Your task to perform on an android device: Add "panasonic triple a" to the cart on costco.com Image 0: 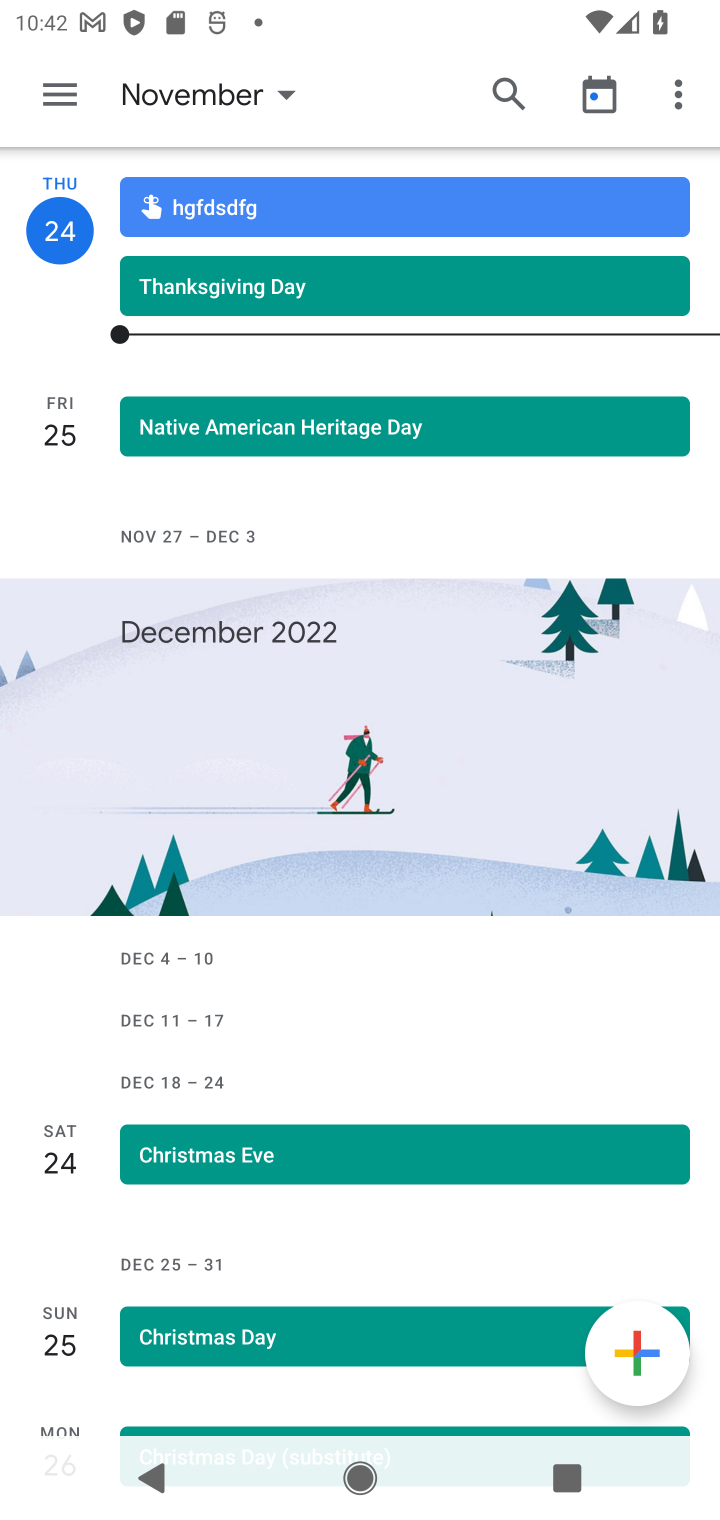
Step 0: press home button
Your task to perform on an android device: Add "panasonic triple a" to the cart on costco.com Image 1: 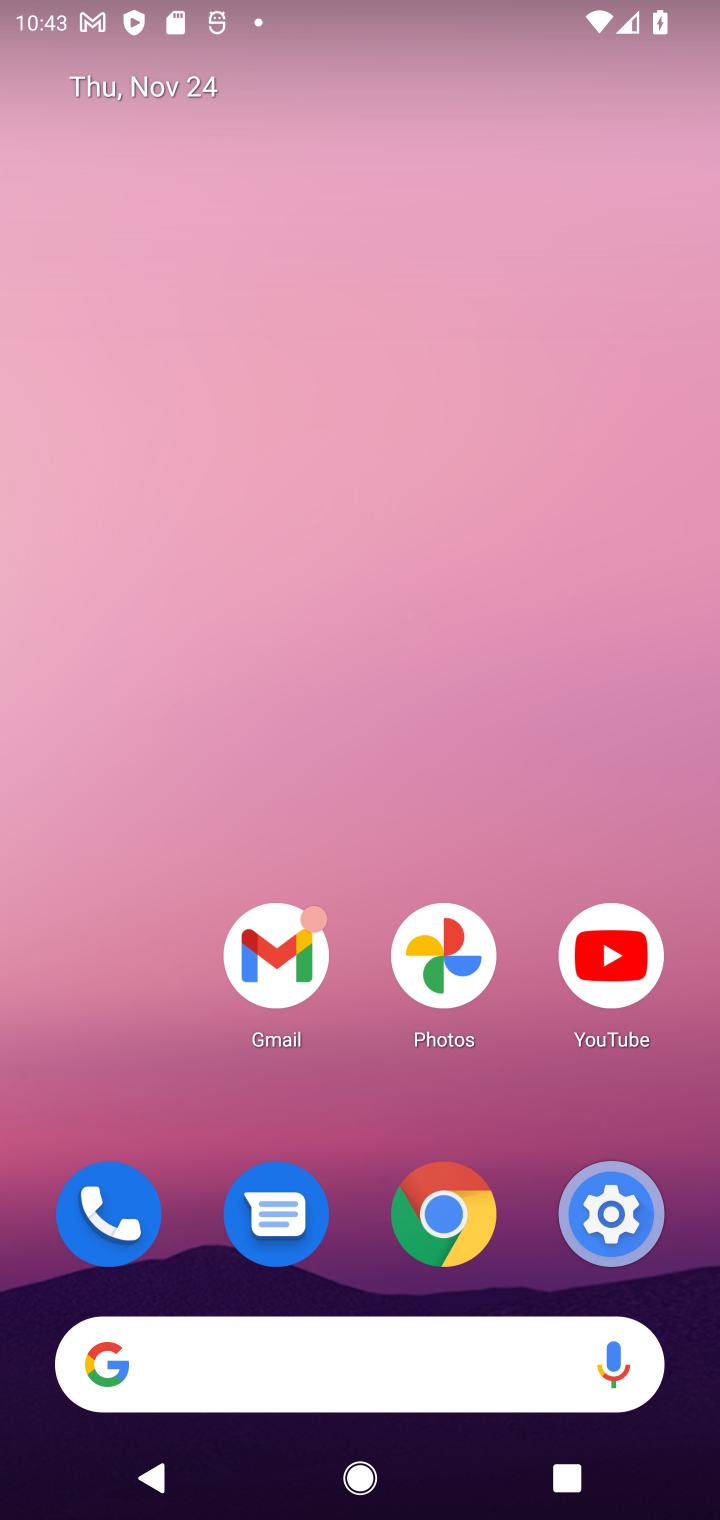
Step 1: click (328, 1362)
Your task to perform on an android device: Add "panasonic triple a" to the cart on costco.com Image 2: 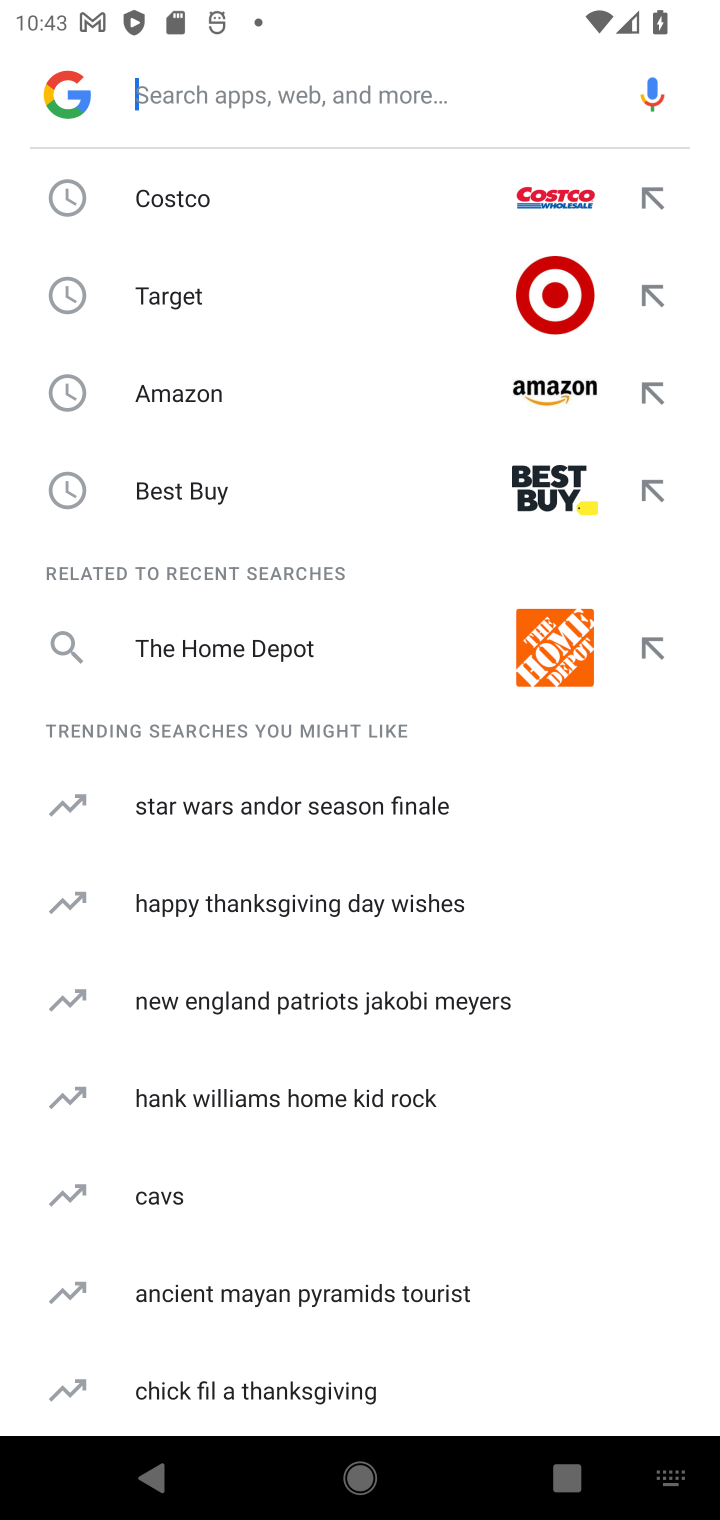
Step 2: click (391, 212)
Your task to perform on an android device: Add "panasonic triple a" to the cart on costco.com Image 3: 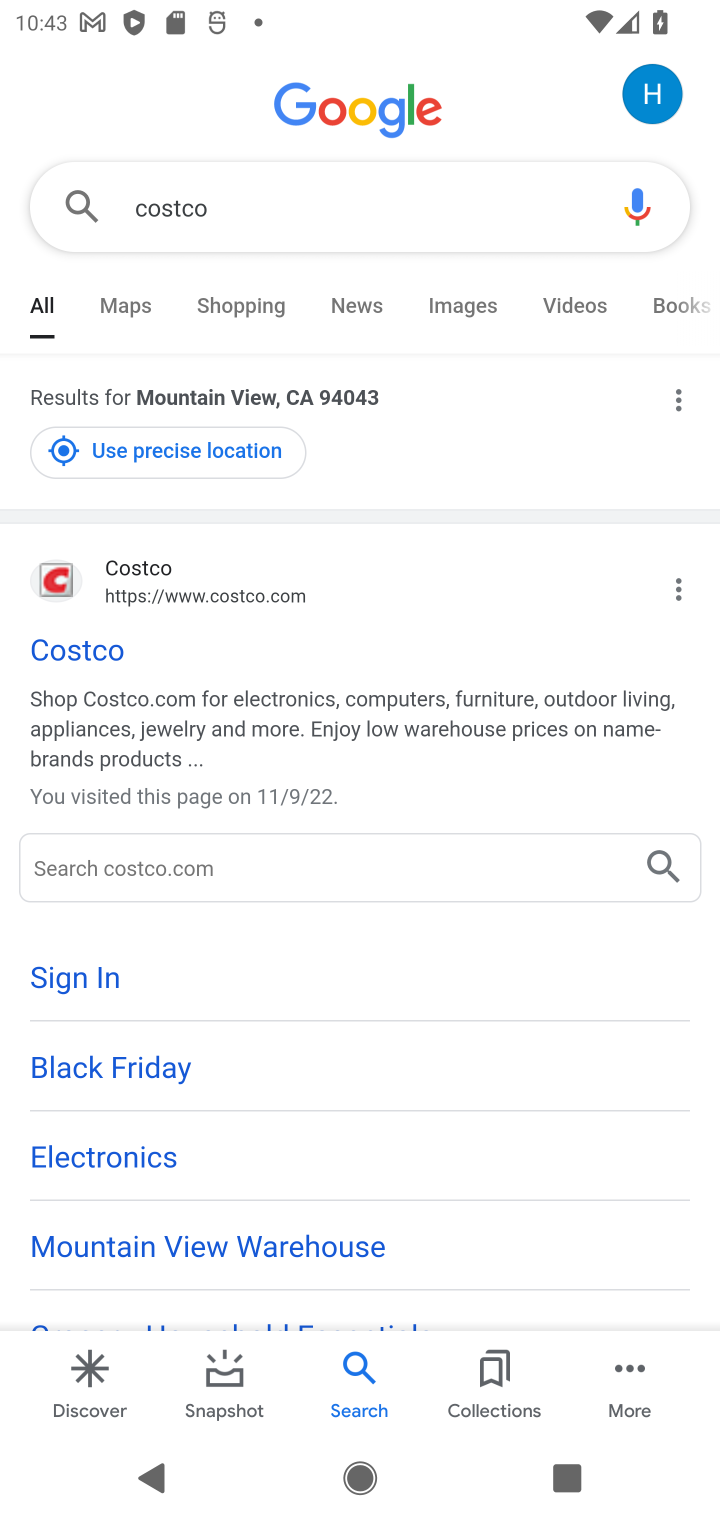
Step 3: click (77, 671)
Your task to perform on an android device: Add "panasonic triple a" to the cart on costco.com Image 4: 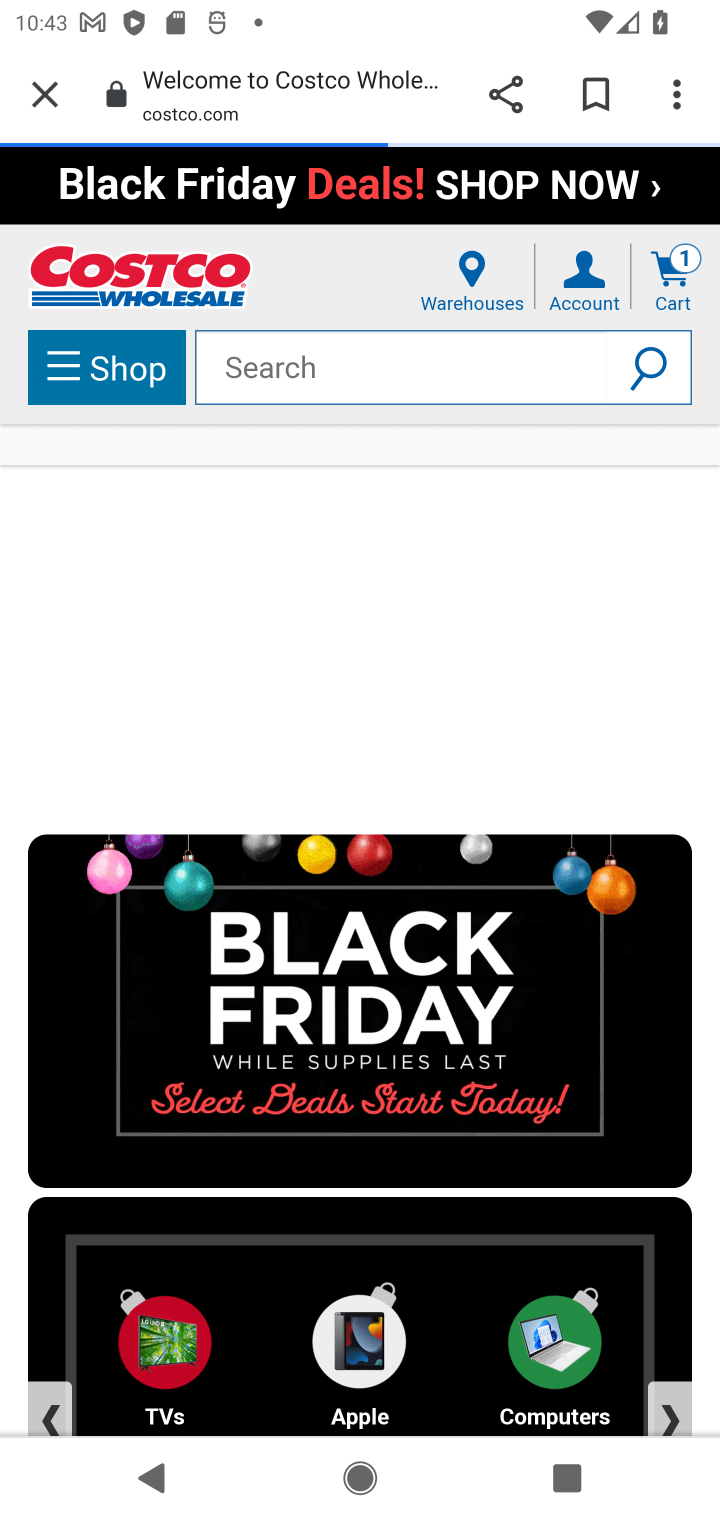
Step 4: click (361, 368)
Your task to perform on an android device: Add "panasonic triple a" to the cart on costco.com Image 5: 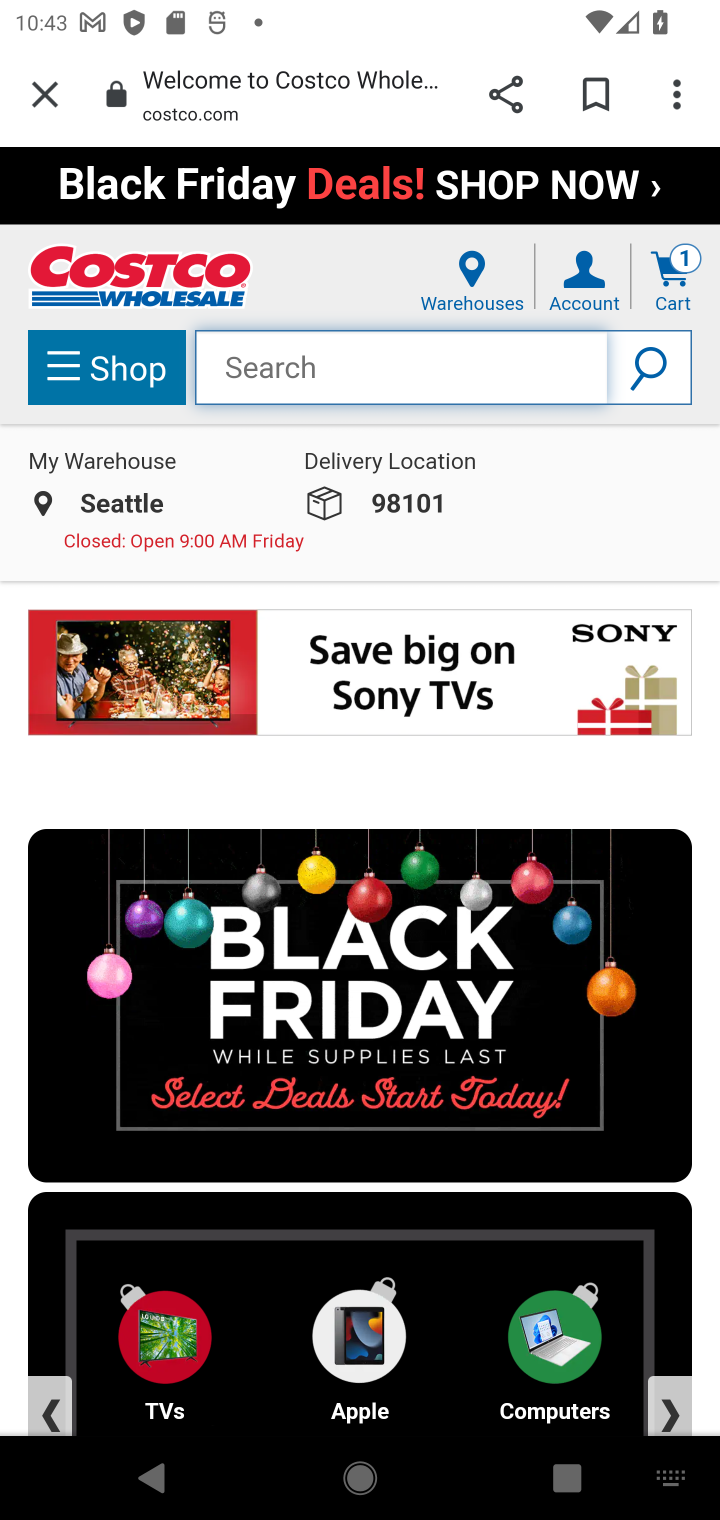
Step 5: type "pansonic triple a"
Your task to perform on an android device: Add "panasonic triple a" to the cart on costco.com Image 6: 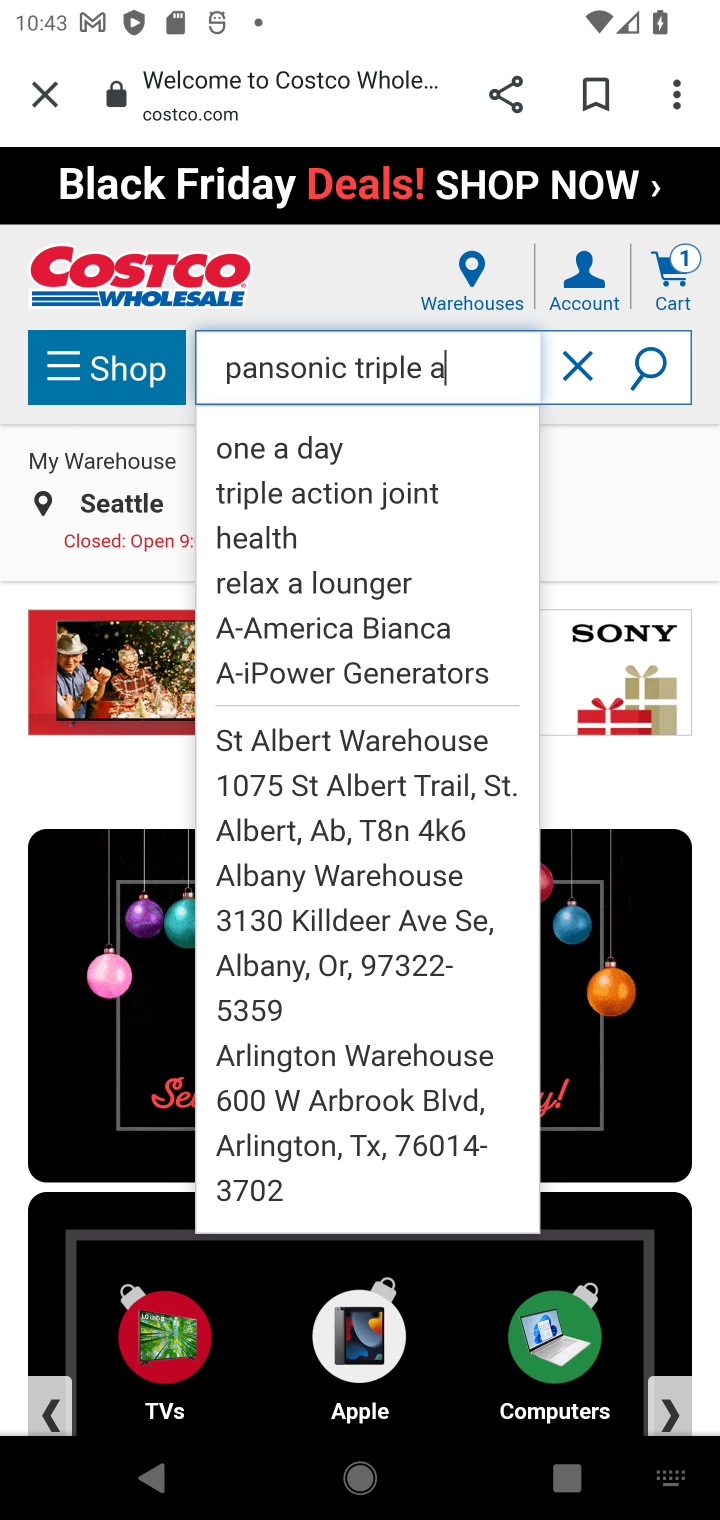
Step 6: click (678, 380)
Your task to perform on an android device: Add "panasonic triple a" to the cart on costco.com Image 7: 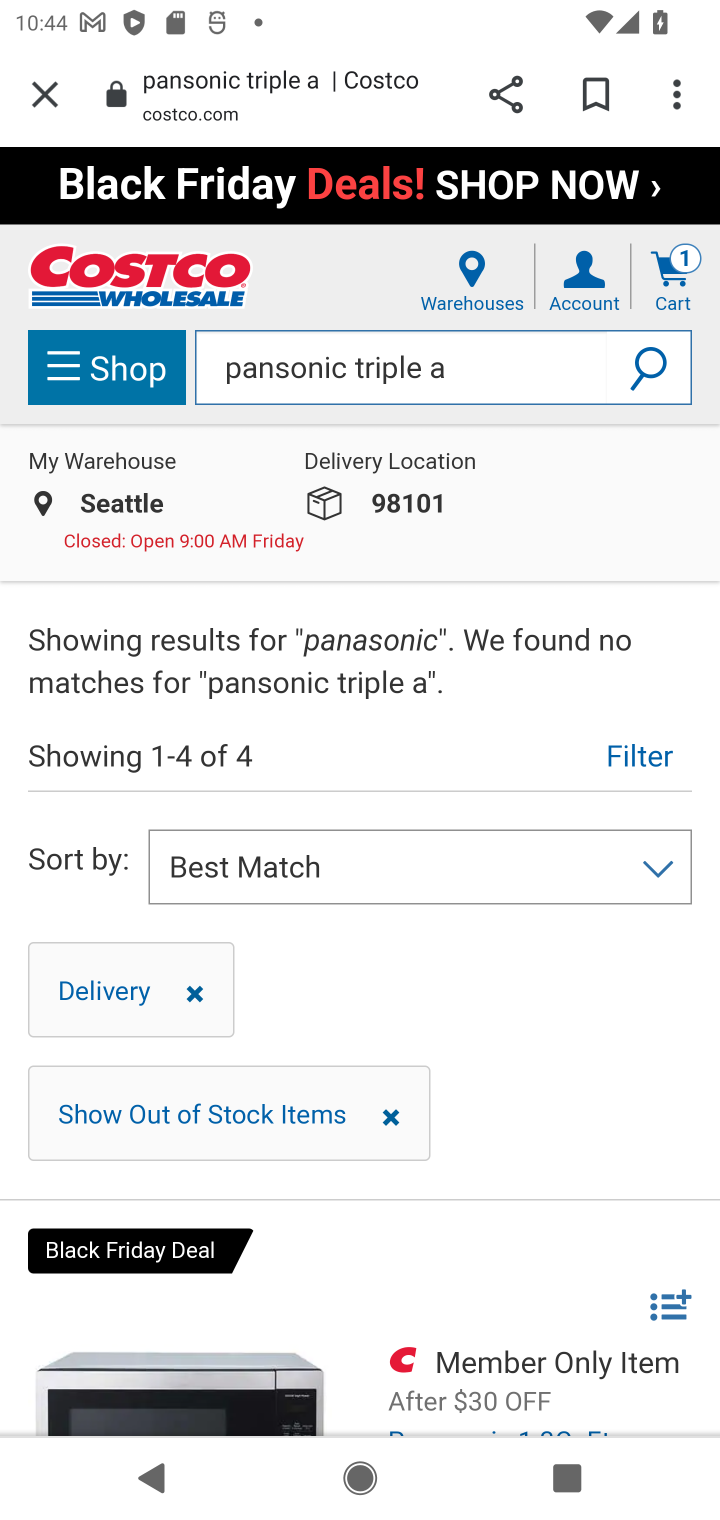
Step 7: task complete